Your task to perform on an android device: Go to battery settings Image 0: 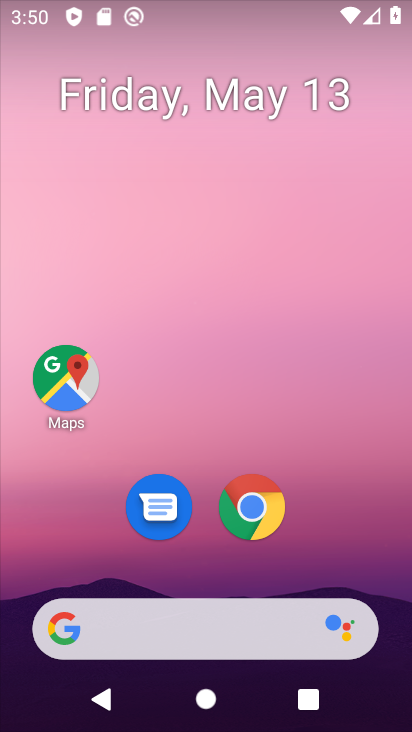
Step 0: drag from (318, 556) to (351, 97)
Your task to perform on an android device: Go to battery settings Image 1: 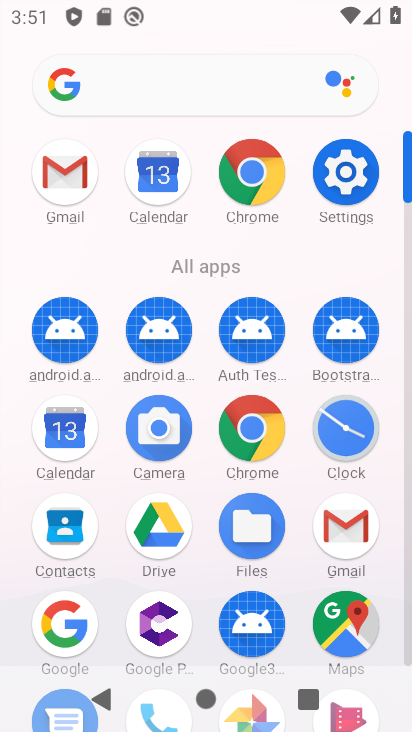
Step 1: click (354, 197)
Your task to perform on an android device: Go to battery settings Image 2: 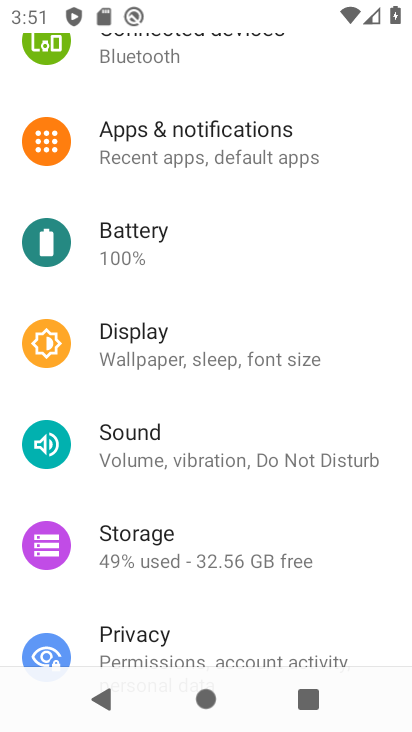
Step 2: drag from (251, 322) to (247, 528)
Your task to perform on an android device: Go to battery settings Image 3: 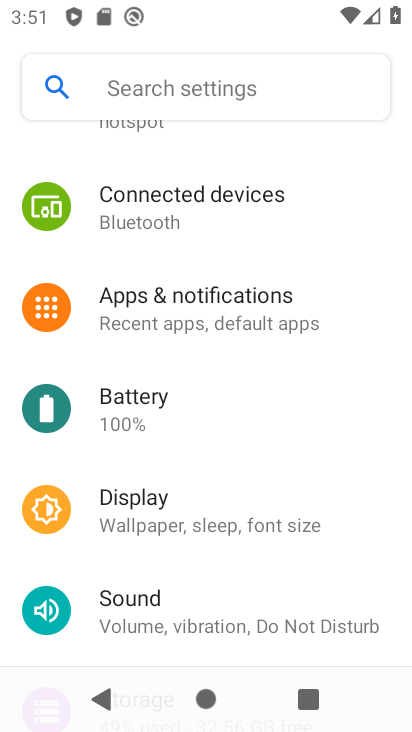
Step 3: click (145, 401)
Your task to perform on an android device: Go to battery settings Image 4: 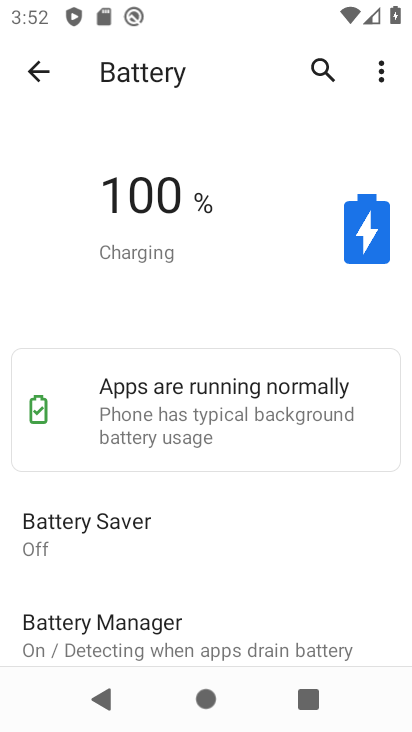
Step 4: task complete